Your task to perform on an android device: Open sound settings Image 0: 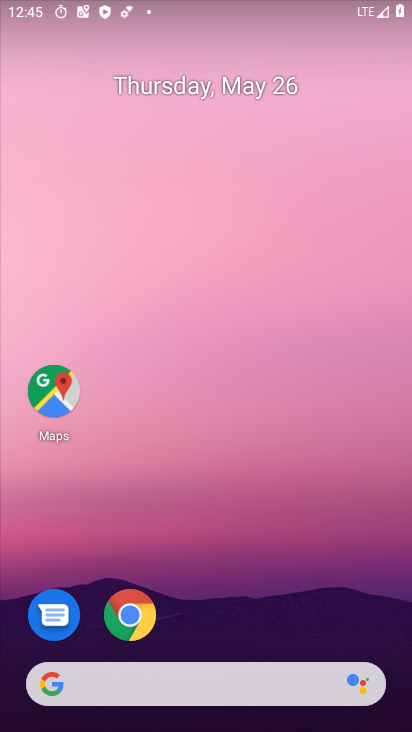
Step 0: drag from (217, 597) to (210, 130)
Your task to perform on an android device: Open sound settings Image 1: 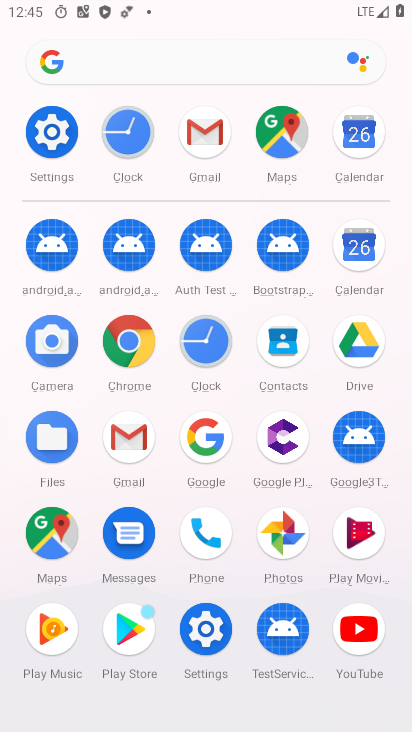
Step 1: click (34, 126)
Your task to perform on an android device: Open sound settings Image 2: 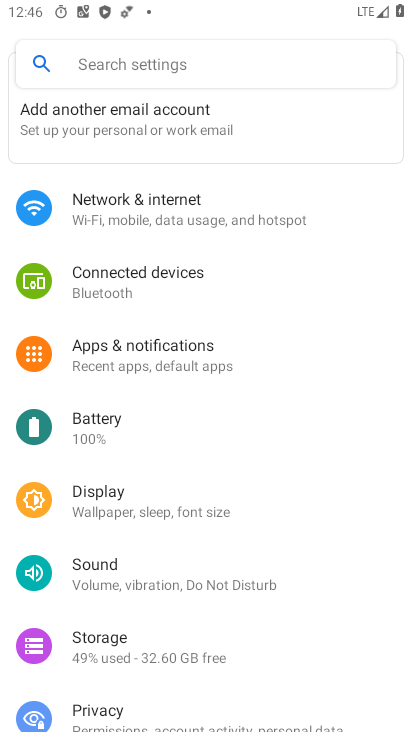
Step 2: click (159, 560)
Your task to perform on an android device: Open sound settings Image 3: 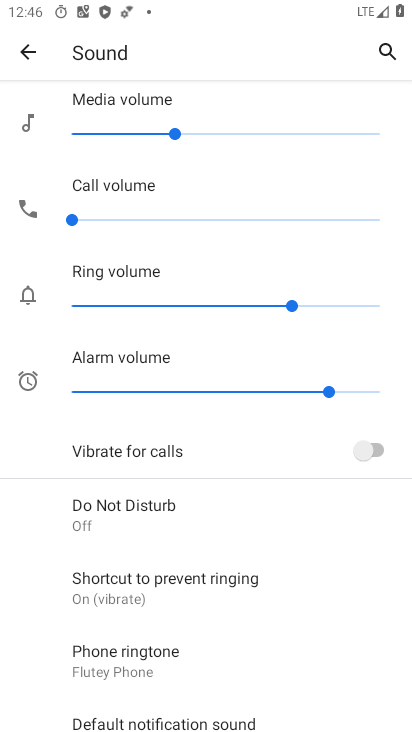
Step 3: task complete